Your task to perform on an android device: Open Google Chrome and click the shortcut for Amazon.com Image 0: 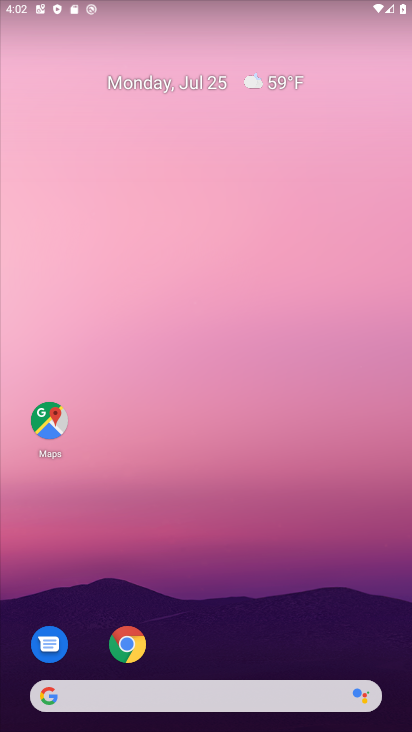
Step 0: click (124, 656)
Your task to perform on an android device: Open Google Chrome and click the shortcut for Amazon.com Image 1: 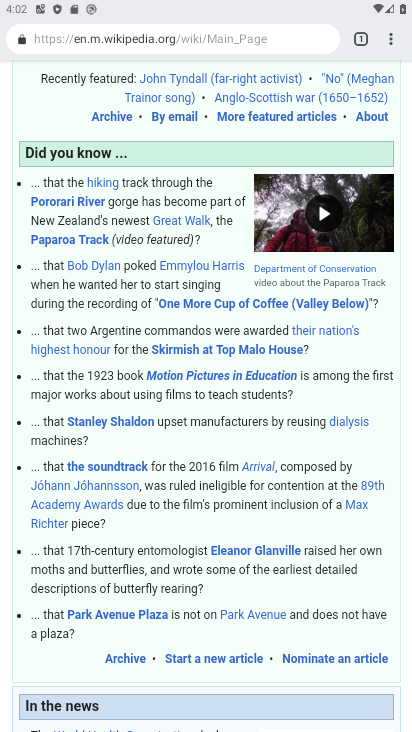
Step 1: click (360, 34)
Your task to perform on an android device: Open Google Chrome and click the shortcut for Amazon.com Image 2: 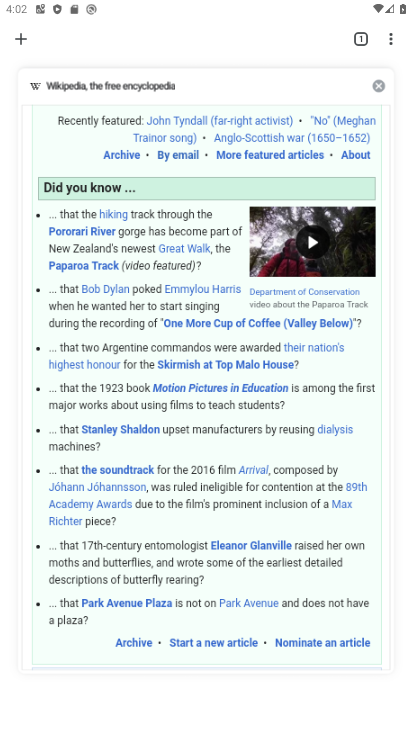
Step 2: click (22, 32)
Your task to perform on an android device: Open Google Chrome and click the shortcut for Amazon.com Image 3: 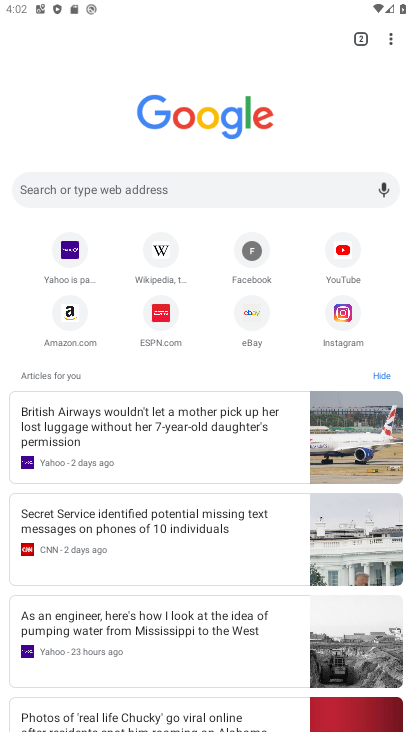
Step 3: click (50, 315)
Your task to perform on an android device: Open Google Chrome and click the shortcut for Amazon.com Image 4: 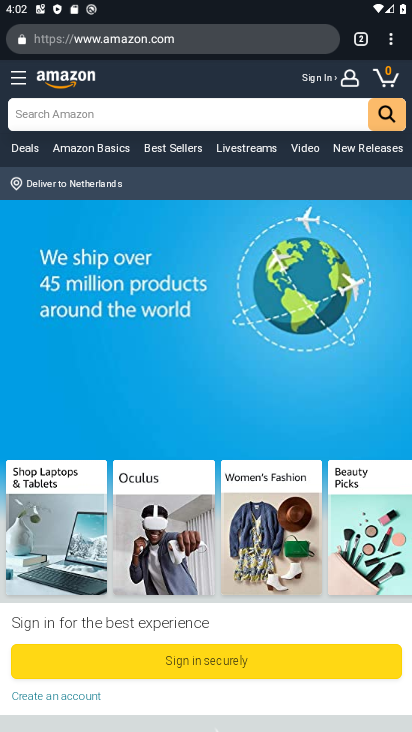
Step 4: task complete